Your task to perform on an android device: Go to accessibility settings Image 0: 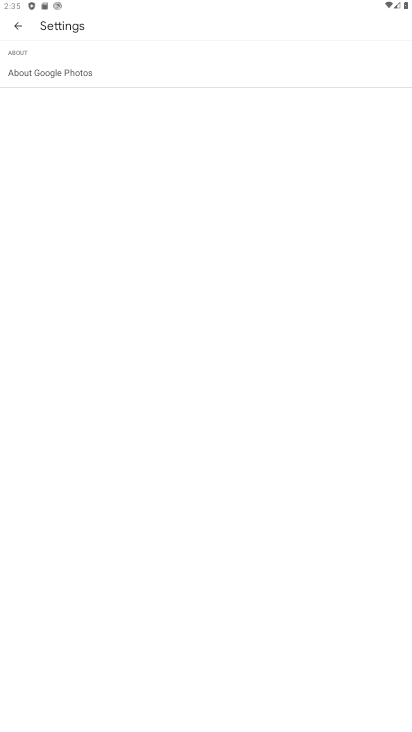
Step 0: press home button
Your task to perform on an android device: Go to accessibility settings Image 1: 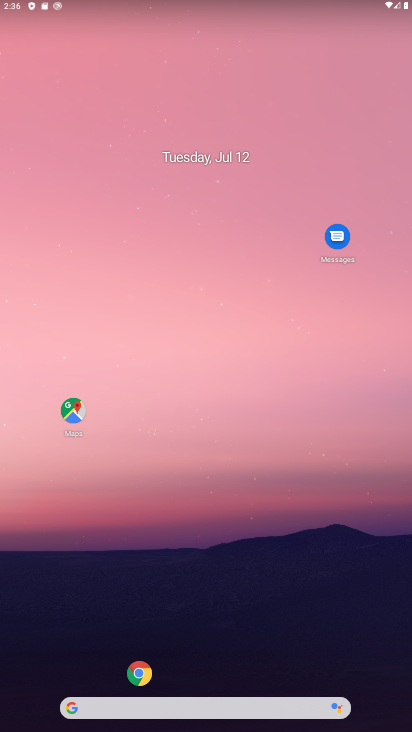
Step 1: drag from (43, 644) to (214, 9)
Your task to perform on an android device: Go to accessibility settings Image 2: 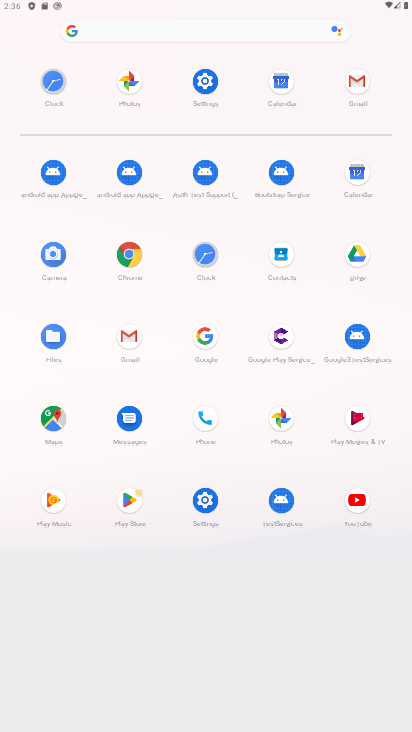
Step 2: click (200, 512)
Your task to perform on an android device: Go to accessibility settings Image 3: 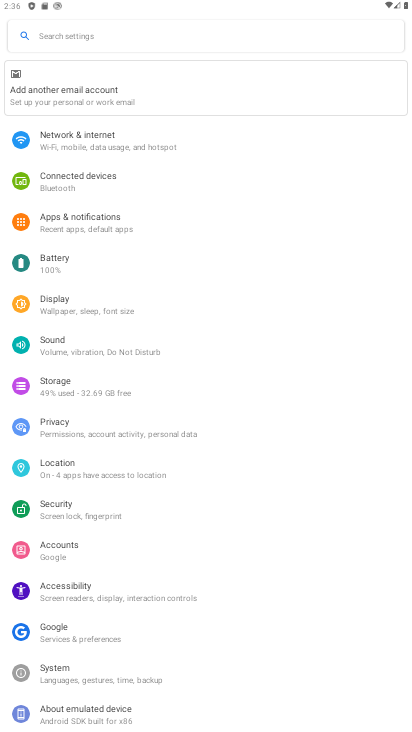
Step 3: click (59, 590)
Your task to perform on an android device: Go to accessibility settings Image 4: 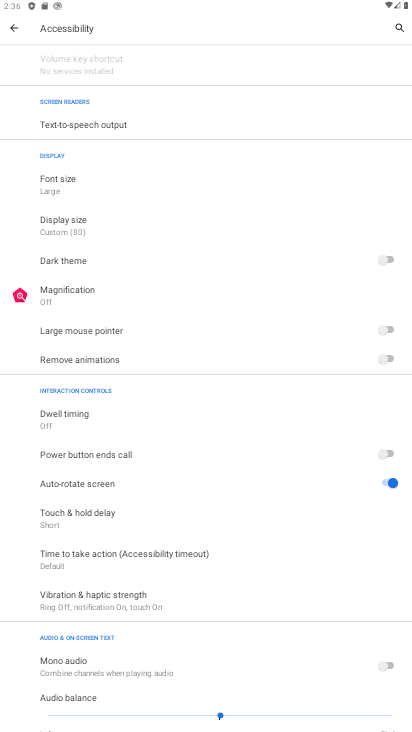
Step 4: task complete